Your task to perform on an android device: Open display settings Image 0: 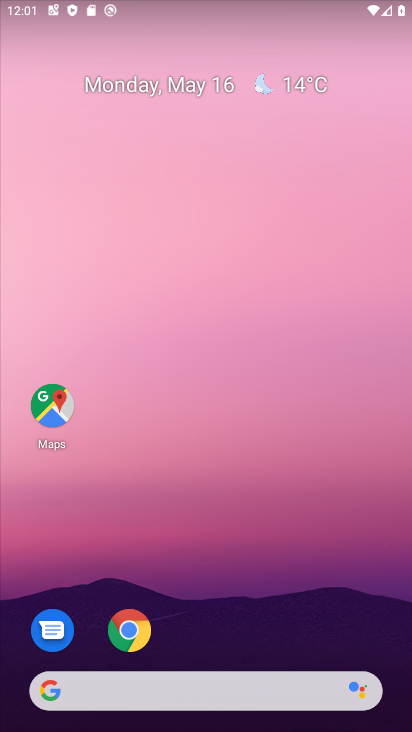
Step 0: drag from (261, 629) to (205, 72)
Your task to perform on an android device: Open display settings Image 1: 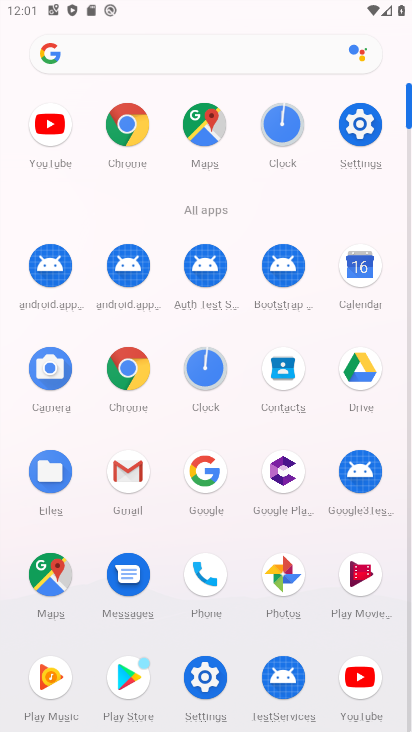
Step 1: click (364, 128)
Your task to perform on an android device: Open display settings Image 2: 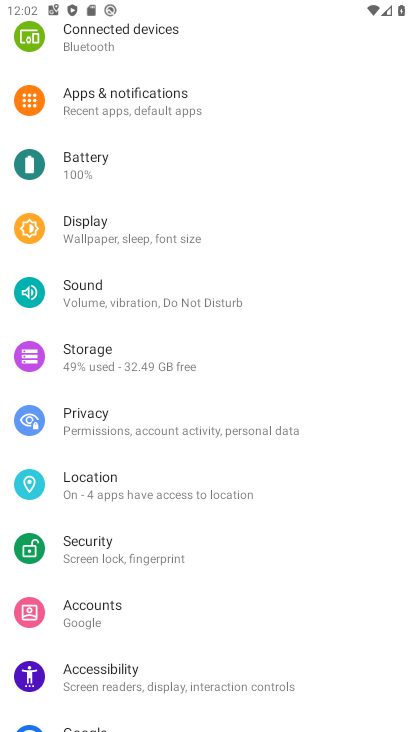
Step 2: click (262, 226)
Your task to perform on an android device: Open display settings Image 3: 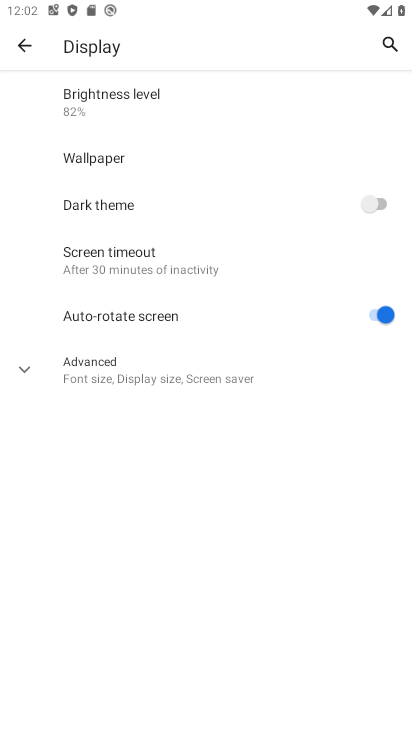
Step 3: task complete